Your task to perform on an android device: Go to wifi settings Image 0: 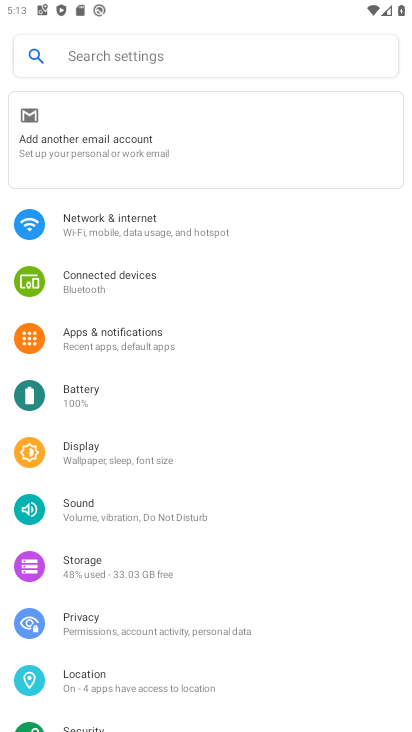
Step 0: press back button
Your task to perform on an android device: Go to wifi settings Image 1: 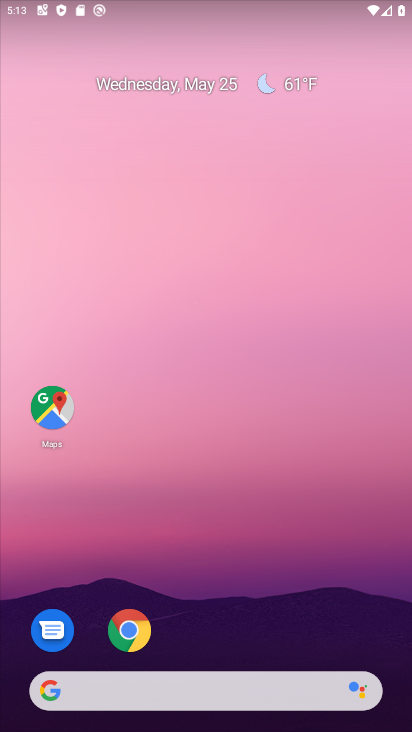
Step 1: drag from (73, 6) to (92, 501)
Your task to perform on an android device: Go to wifi settings Image 2: 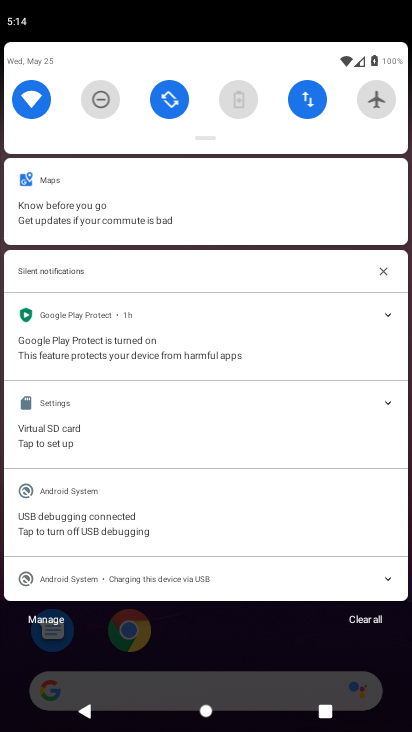
Step 2: click (31, 91)
Your task to perform on an android device: Go to wifi settings Image 3: 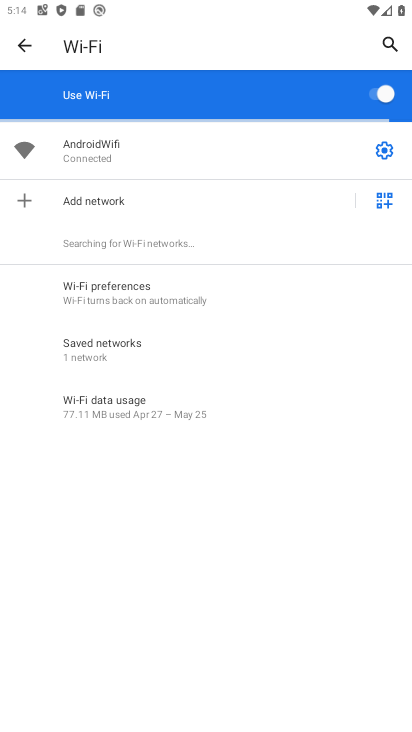
Step 3: task complete